Your task to perform on an android device: turn on bluetooth scan Image 0: 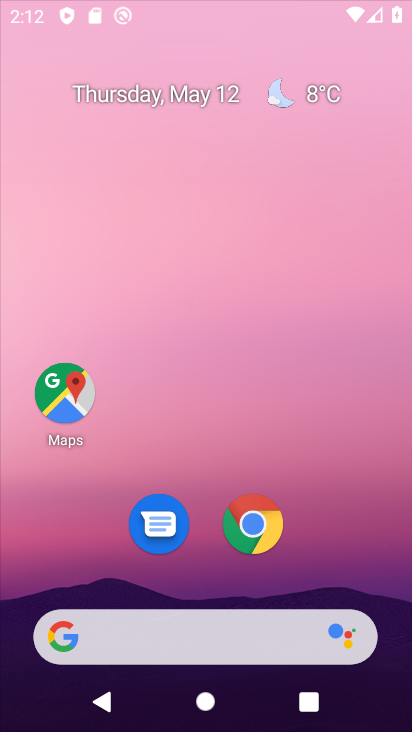
Step 0: drag from (343, 513) to (338, 1)
Your task to perform on an android device: turn on bluetooth scan Image 1: 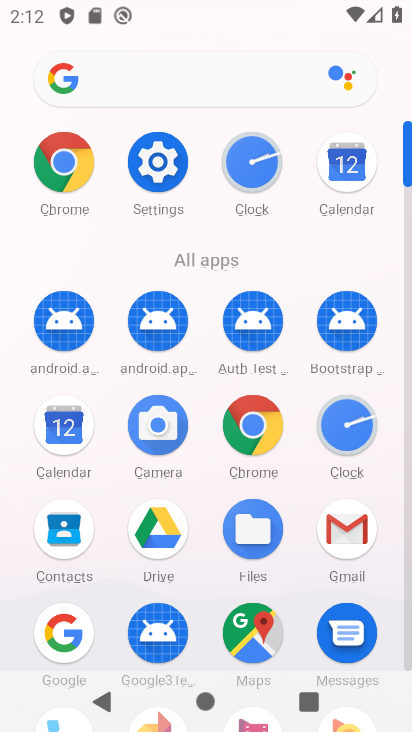
Step 1: click (147, 156)
Your task to perform on an android device: turn on bluetooth scan Image 2: 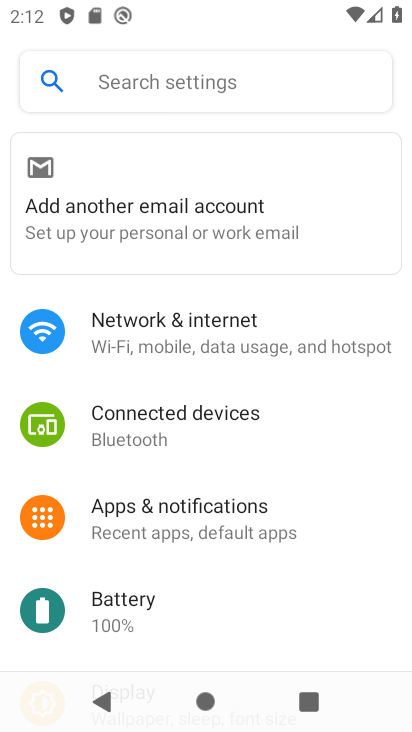
Step 2: drag from (210, 570) to (271, 96)
Your task to perform on an android device: turn on bluetooth scan Image 3: 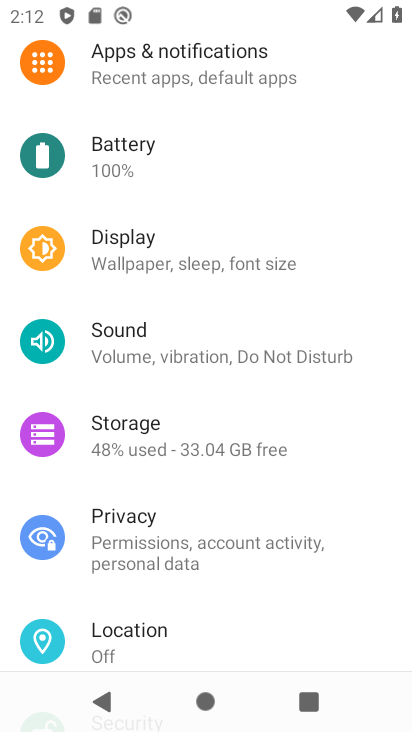
Step 3: drag from (211, 582) to (213, 196)
Your task to perform on an android device: turn on bluetooth scan Image 4: 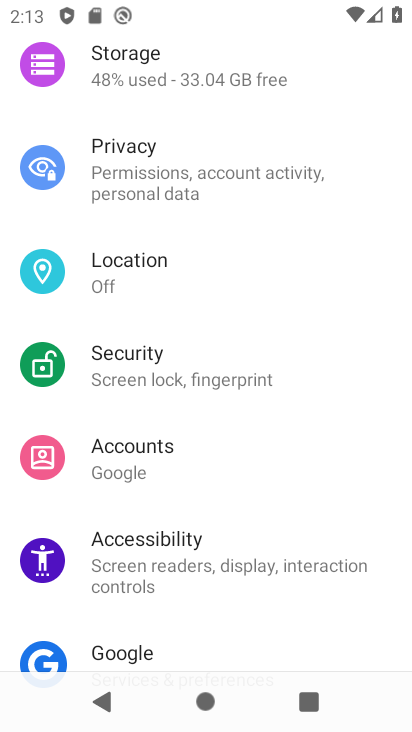
Step 4: click (169, 269)
Your task to perform on an android device: turn on bluetooth scan Image 5: 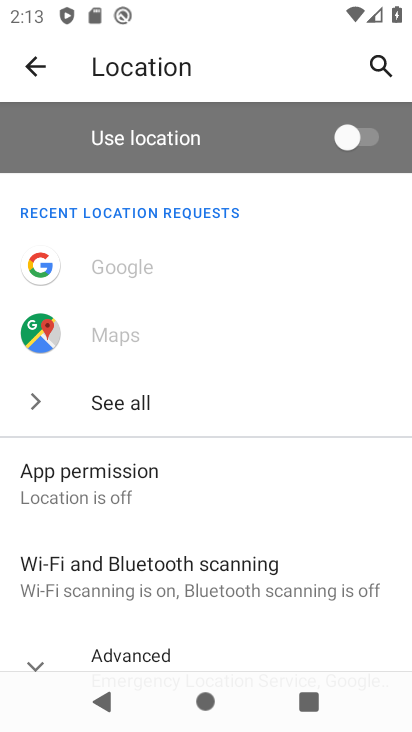
Step 5: drag from (220, 519) to (237, 208)
Your task to perform on an android device: turn on bluetooth scan Image 6: 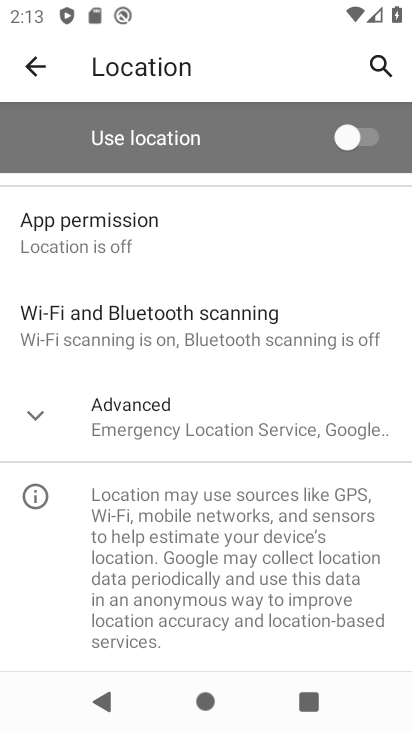
Step 6: click (324, 319)
Your task to perform on an android device: turn on bluetooth scan Image 7: 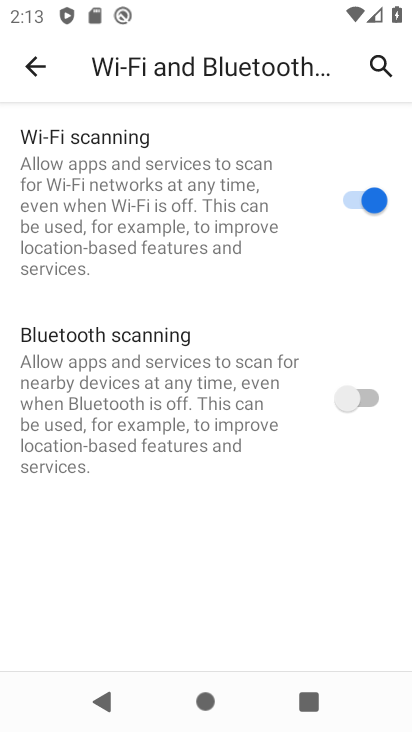
Step 7: click (366, 391)
Your task to perform on an android device: turn on bluetooth scan Image 8: 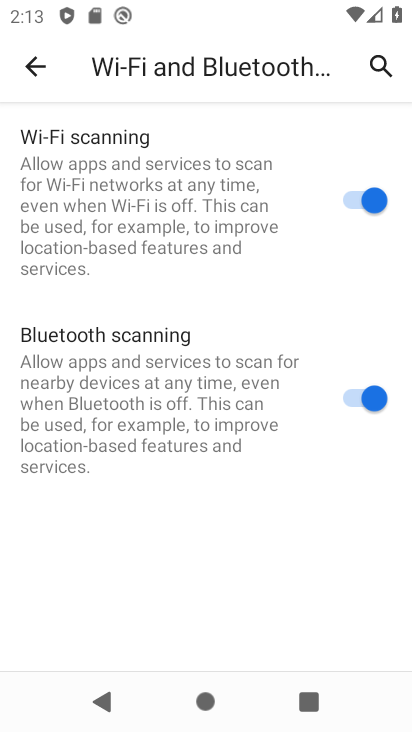
Step 8: task complete